Your task to perform on an android device: uninstall "Life360: Find Family & Friends" Image 0: 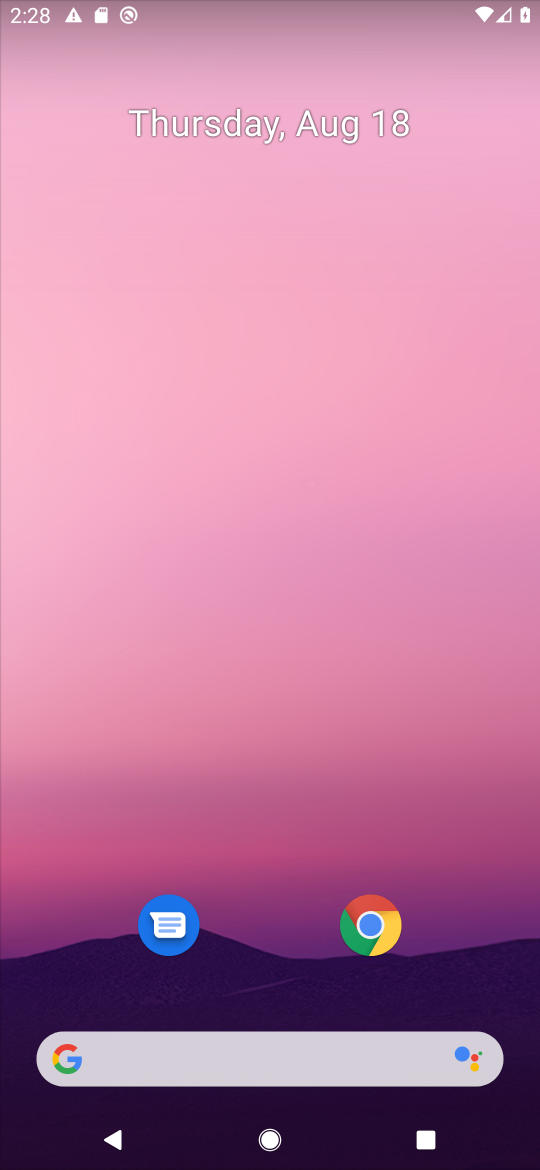
Step 0: click (252, 973)
Your task to perform on an android device: uninstall "Life360: Find Family & Friends" Image 1: 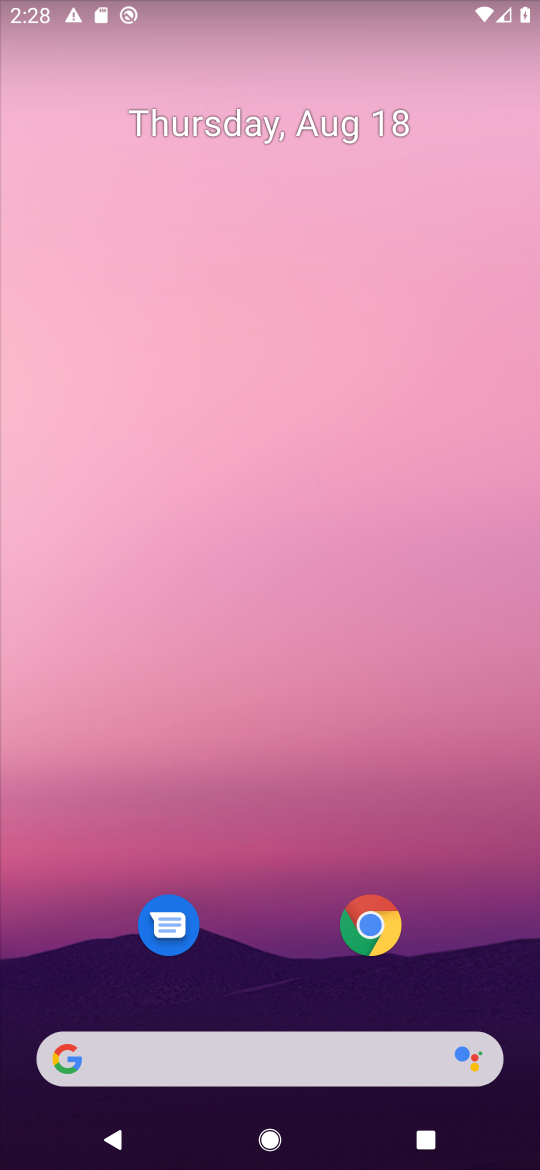
Step 1: drag from (254, 987) to (341, 19)
Your task to perform on an android device: uninstall "Life360: Find Family & Friends" Image 2: 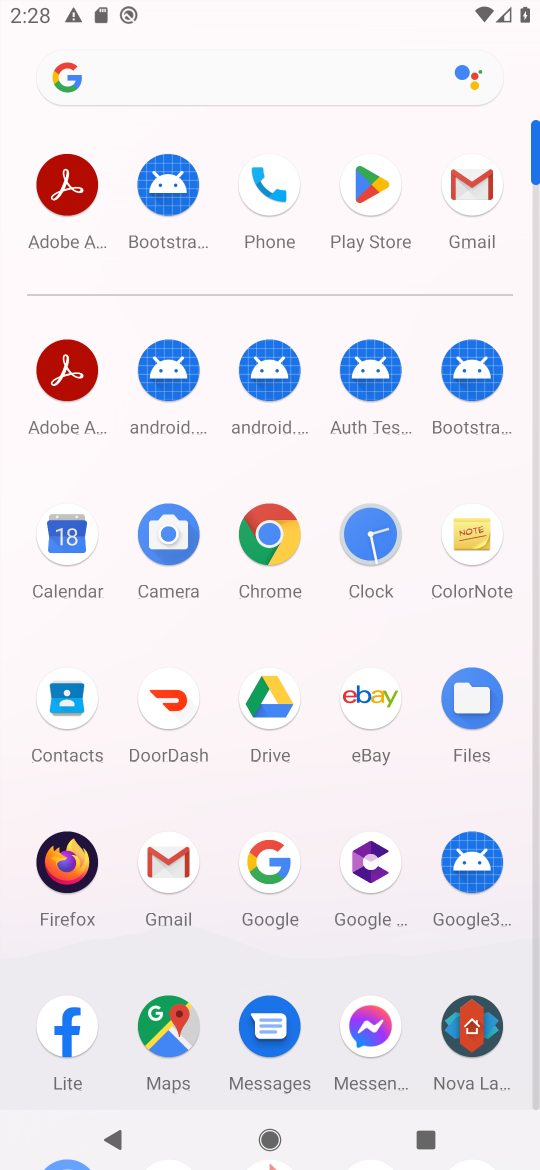
Step 2: click (360, 193)
Your task to perform on an android device: uninstall "Life360: Find Family & Friends" Image 3: 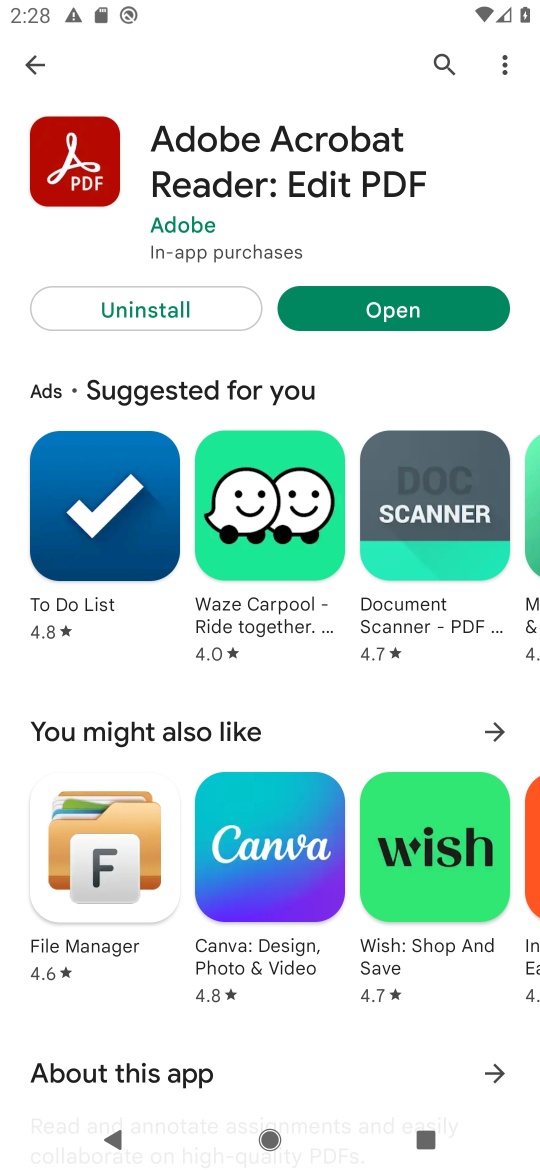
Step 3: click (42, 78)
Your task to perform on an android device: uninstall "Life360: Find Family & Friends" Image 4: 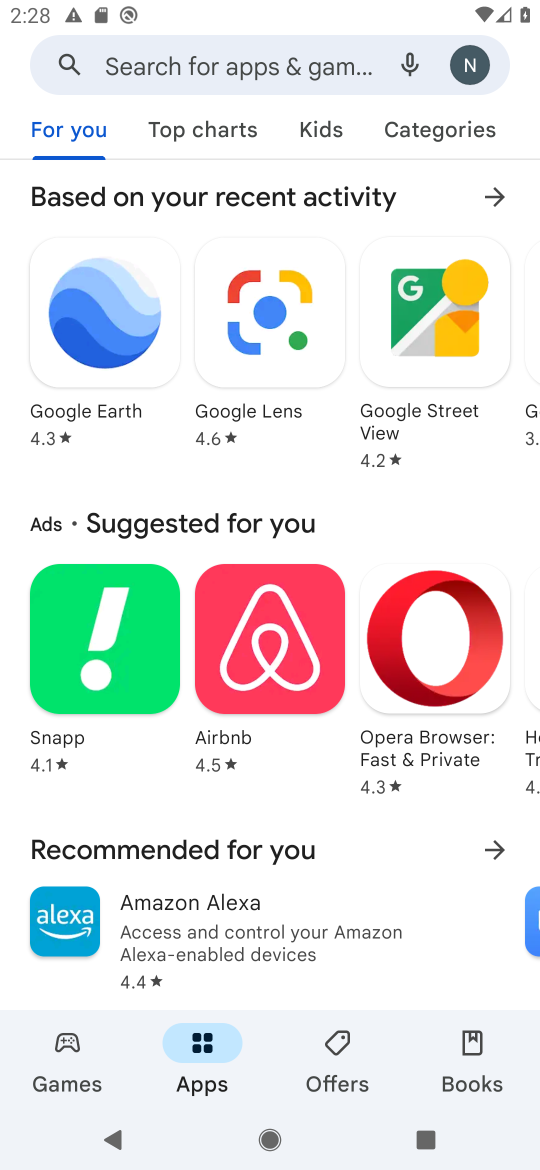
Step 4: click (183, 61)
Your task to perform on an android device: uninstall "Life360: Find Family & Friends" Image 5: 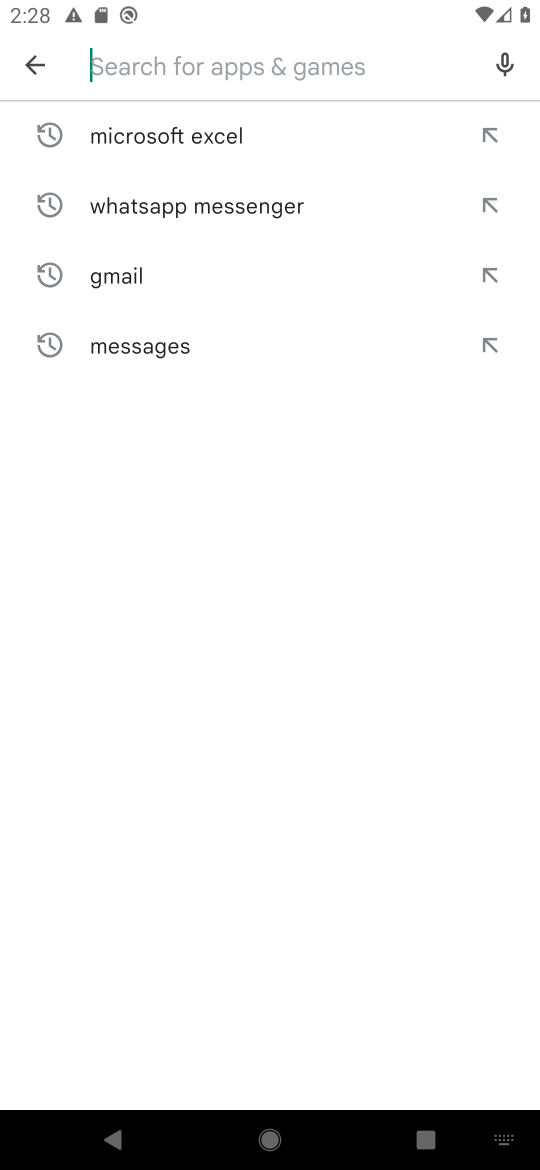
Step 5: type "Life360: Find Family & Friends"
Your task to perform on an android device: uninstall "Life360: Find Family & Friends" Image 6: 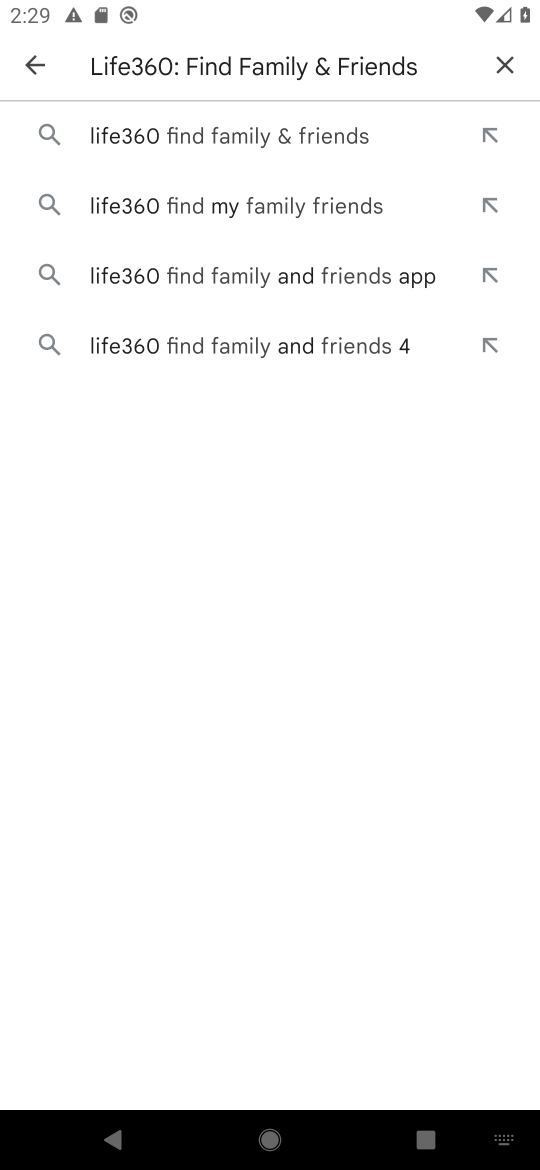
Step 6: click (326, 132)
Your task to perform on an android device: uninstall "Life360: Find Family & Friends" Image 7: 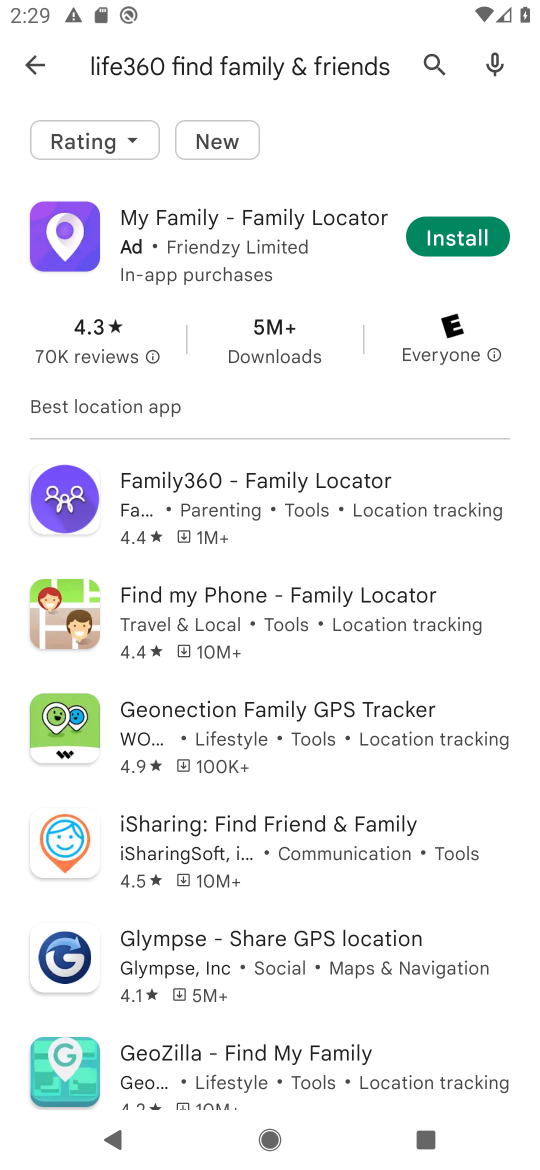
Step 7: click (285, 497)
Your task to perform on an android device: uninstall "Life360: Find Family & Friends" Image 8: 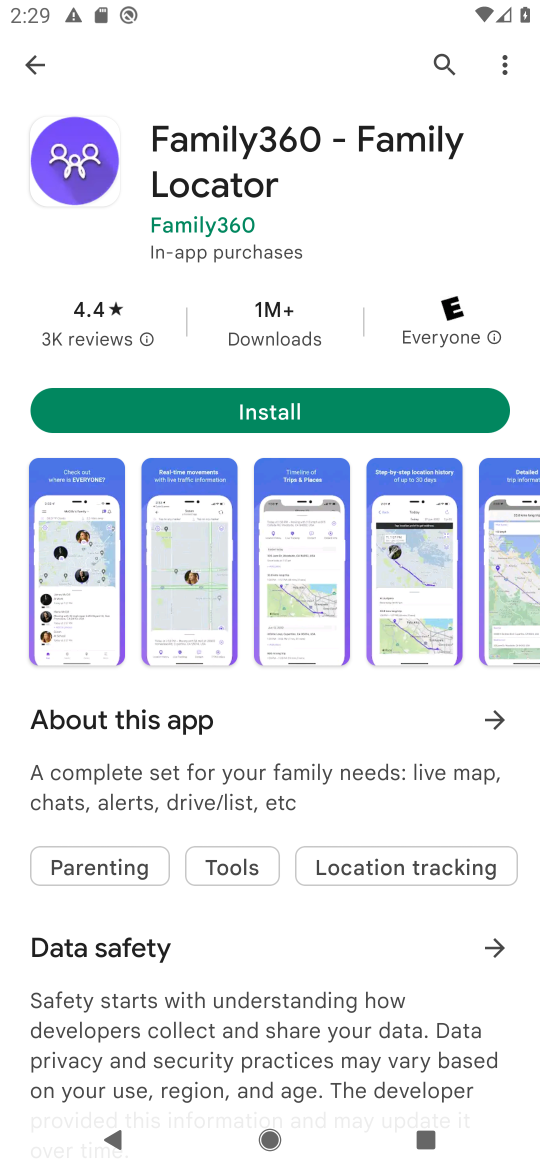
Step 8: task complete